Your task to perform on an android device: turn on the 12-hour format for clock Image 0: 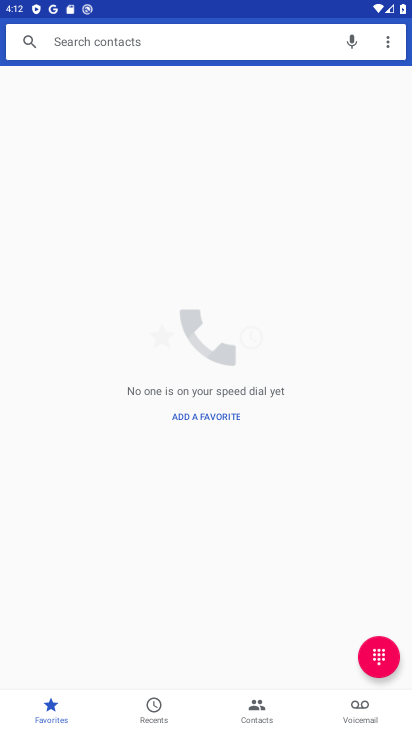
Step 0: press home button
Your task to perform on an android device: turn on the 12-hour format for clock Image 1: 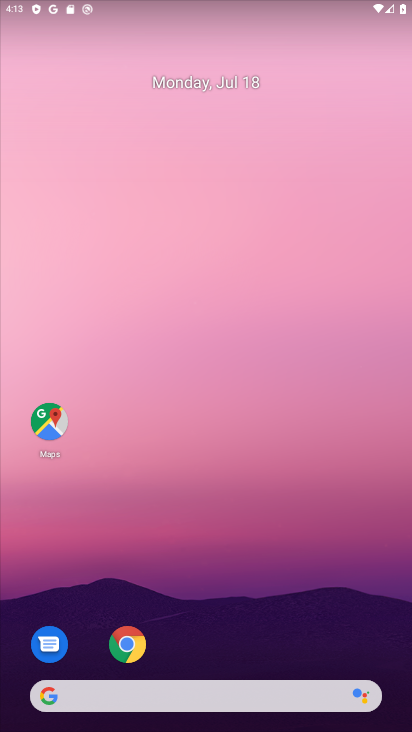
Step 1: drag from (335, 645) to (285, 191)
Your task to perform on an android device: turn on the 12-hour format for clock Image 2: 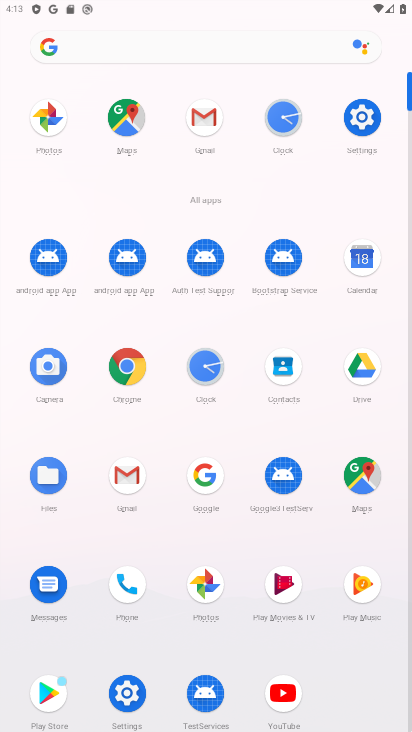
Step 2: click (283, 114)
Your task to perform on an android device: turn on the 12-hour format for clock Image 3: 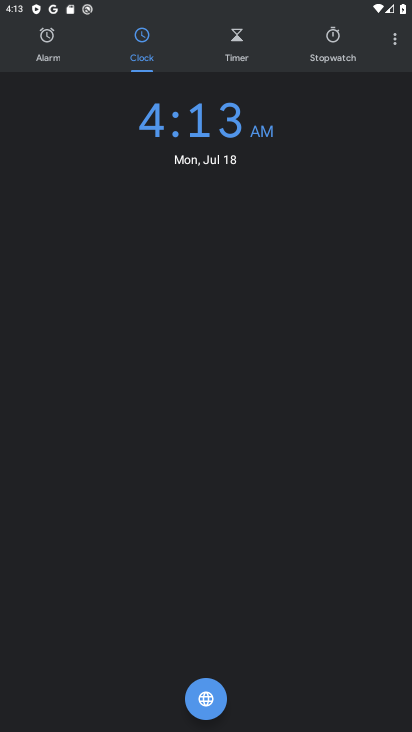
Step 3: click (395, 53)
Your task to perform on an android device: turn on the 12-hour format for clock Image 4: 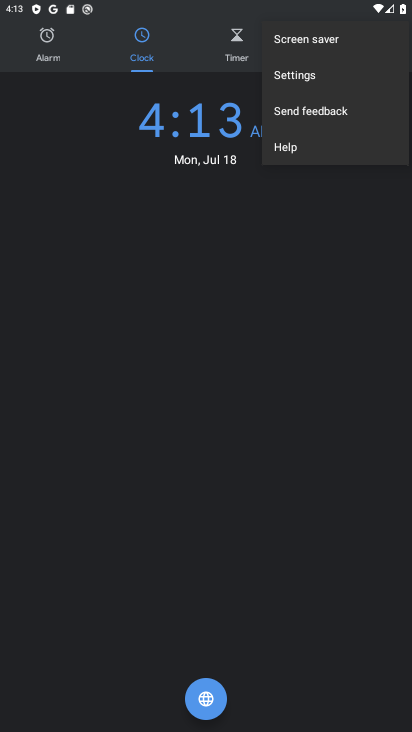
Step 4: click (330, 81)
Your task to perform on an android device: turn on the 12-hour format for clock Image 5: 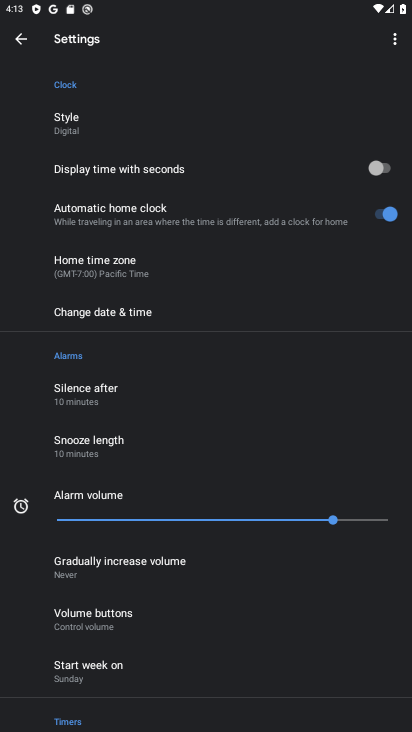
Step 5: click (232, 317)
Your task to perform on an android device: turn on the 12-hour format for clock Image 6: 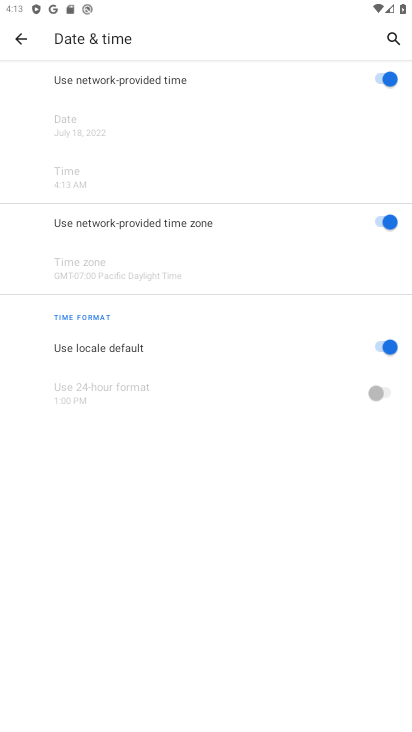
Step 6: task complete